Your task to perform on an android device: allow cookies in the chrome app Image 0: 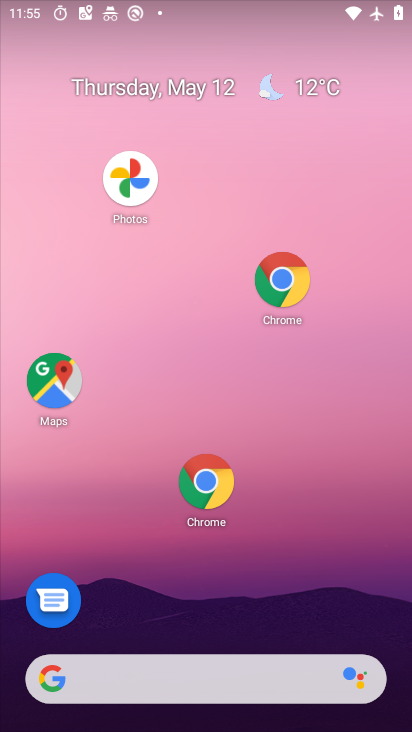
Step 0: drag from (314, 596) to (65, 47)
Your task to perform on an android device: allow cookies in the chrome app Image 1: 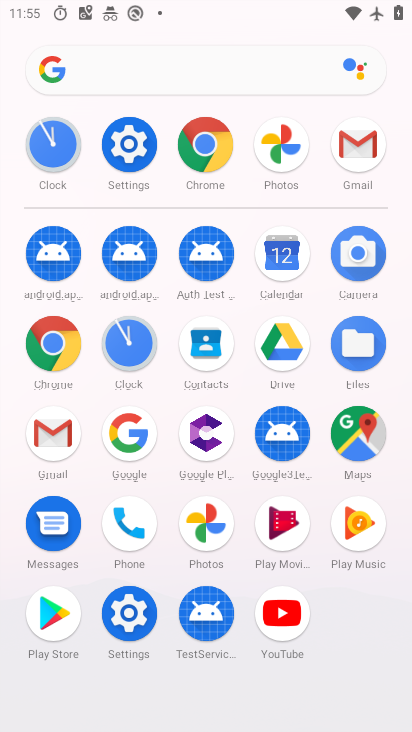
Step 1: click (195, 145)
Your task to perform on an android device: allow cookies in the chrome app Image 2: 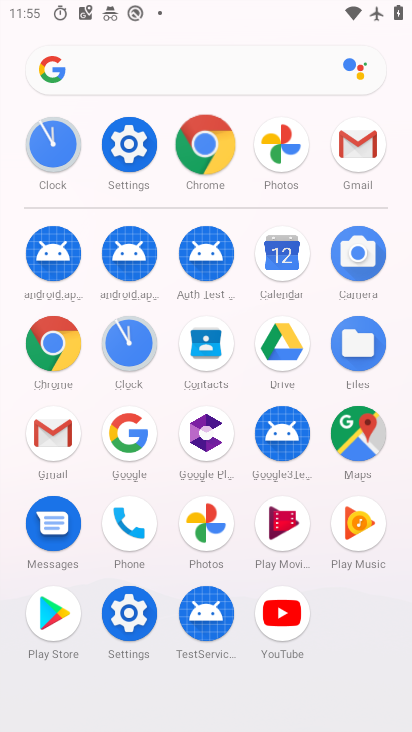
Step 2: click (195, 145)
Your task to perform on an android device: allow cookies in the chrome app Image 3: 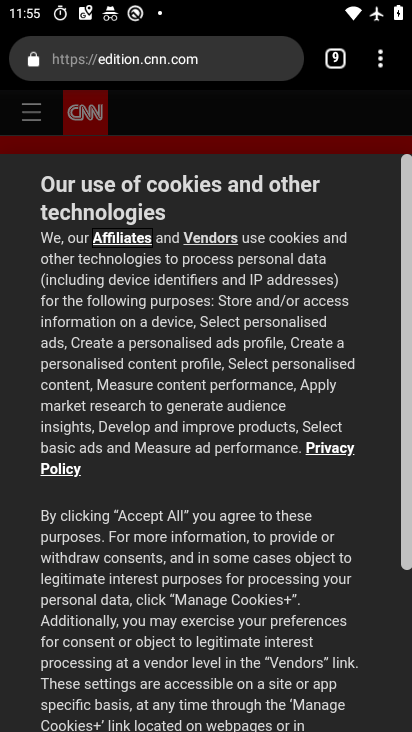
Step 3: click (370, 61)
Your task to perform on an android device: allow cookies in the chrome app Image 4: 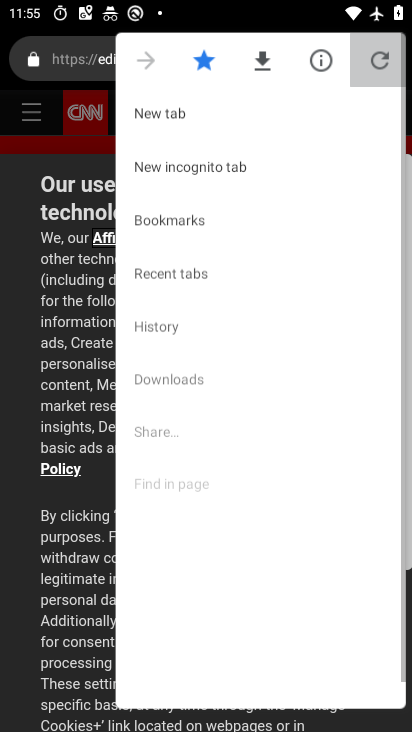
Step 4: click (370, 61)
Your task to perform on an android device: allow cookies in the chrome app Image 5: 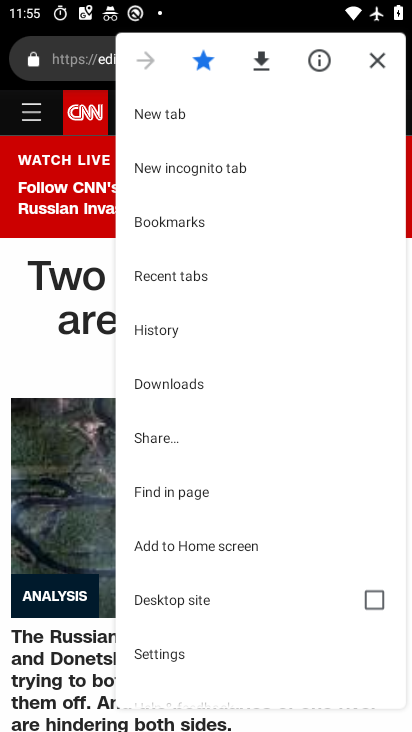
Step 5: click (159, 651)
Your task to perform on an android device: allow cookies in the chrome app Image 6: 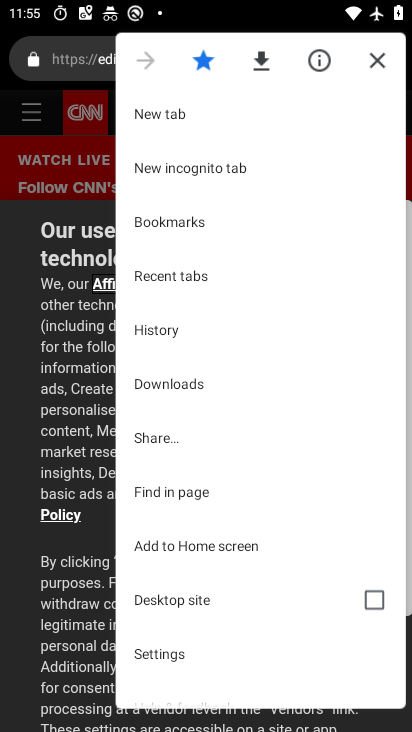
Step 6: click (157, 652)
Your task to perform on an android device: allow cookies in the chrome app Image 7: 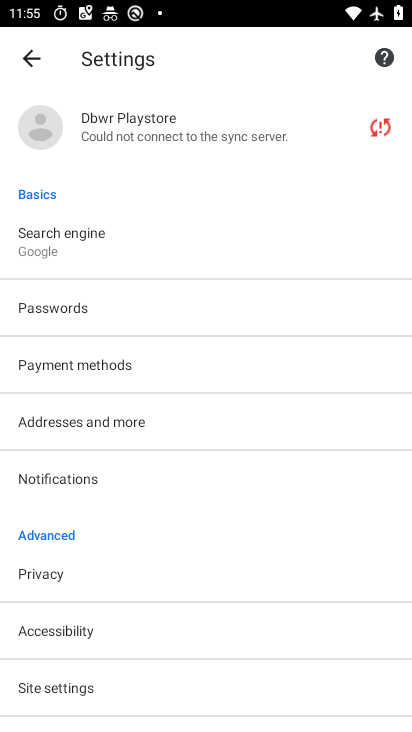
Step 7: drag from (132, 538) to (133, 108)
Your task to perform on an android device: allow cookies in the chrome app Image 8: 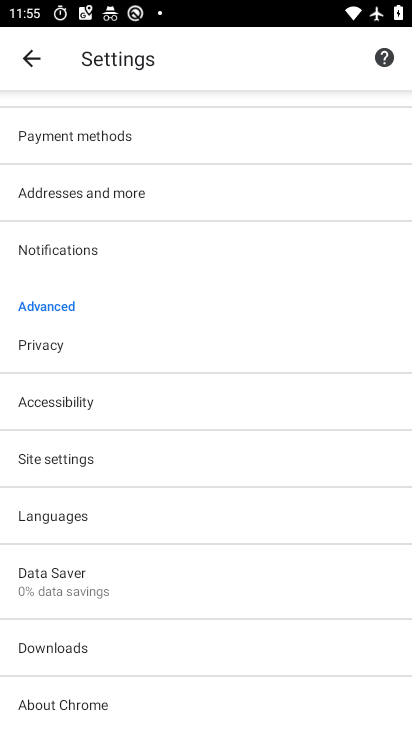
Step 8: click (61, 470)
Your task to perform on an android device: allow cookies in the chrome app Image 9: 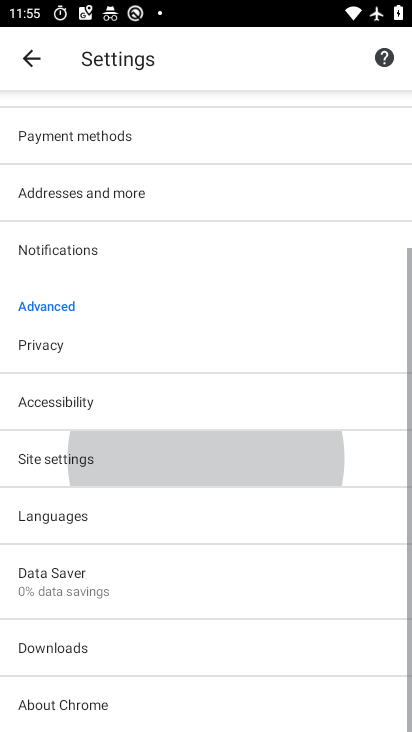
Step 9: click (61, 470)
Your task to perform on an android device: allow cookies in the chrome app Image 10: 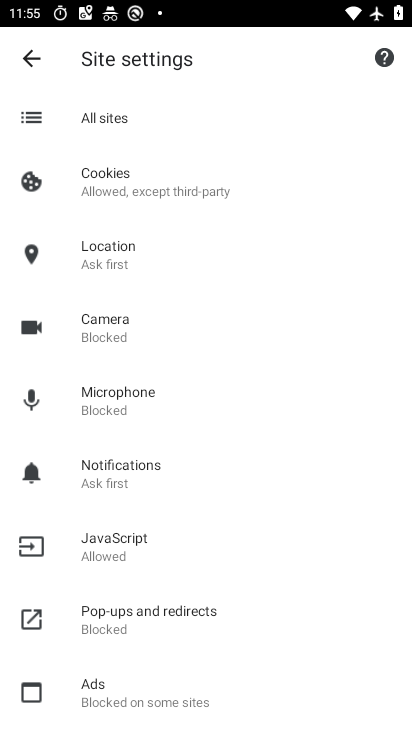
Step 10: click (114, 177)
Your task to perform on an android device: allow cookies in the chrome app Image 11: 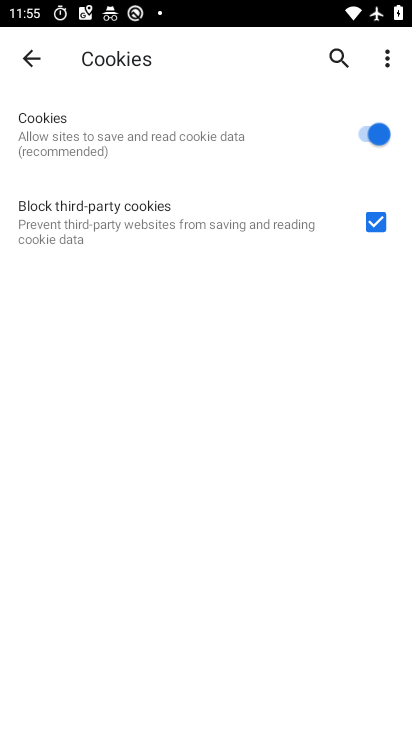
Step 11: task complete